Your task to perform on an android device: delete browsing data in the chrome app Image 0: 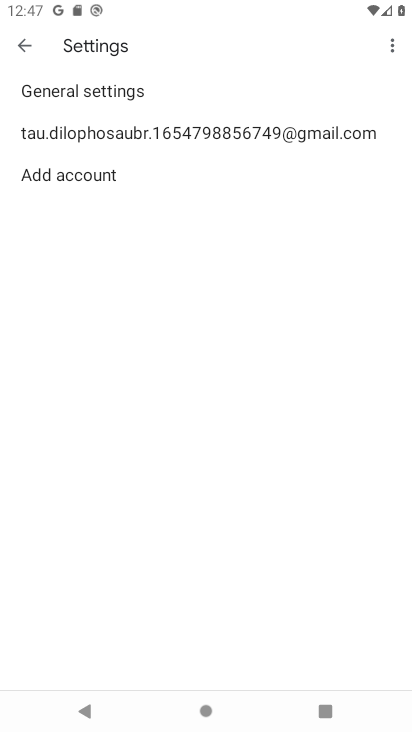
Step 0: press home button
Your task to perform on an android device: delete browsing data in the chrome app Image 1: 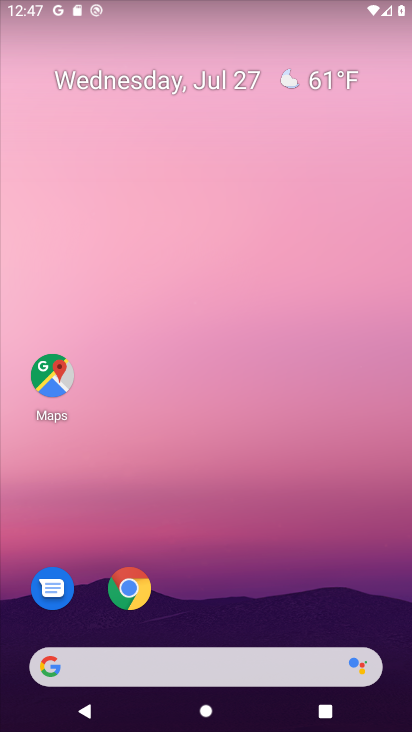
Step 1: click (130, 587)
Your task to perform on an android device: delete browsing data in the chrome app Image 2: 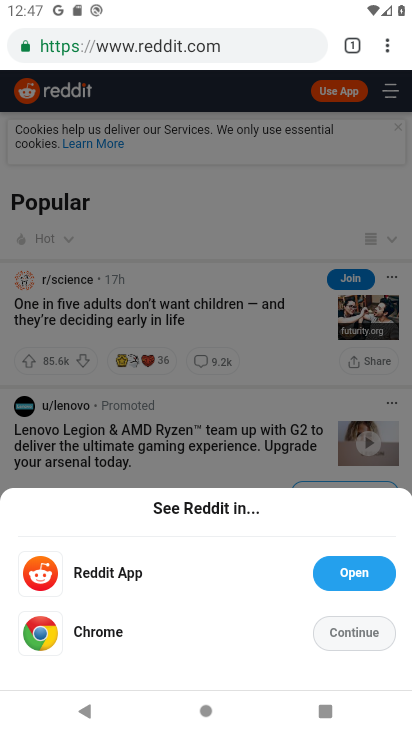
Step 2: press home button
Your task to perform on an android device: delete browsing data in the chrome app Image 3: 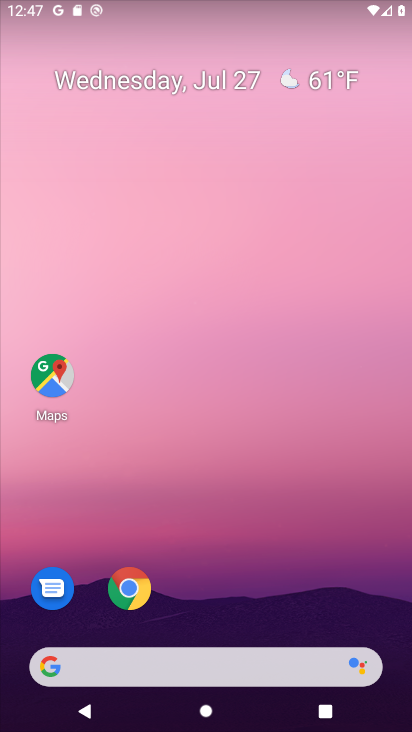
Step 3: click (128, 585)
Your task to perform on an android device: delete browsing data in the chrome app Image 4: 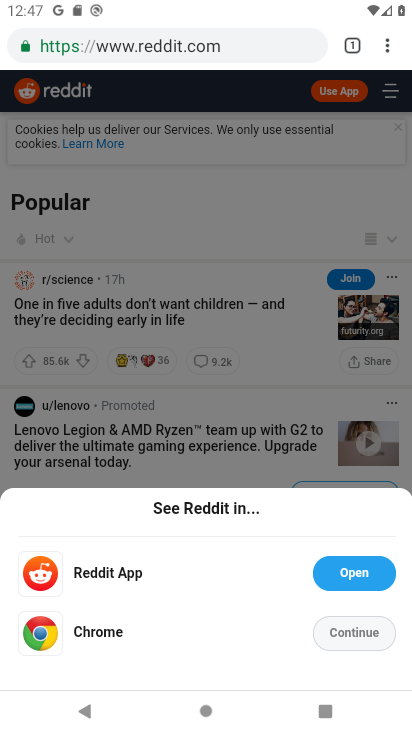
Step 4: click (42, 634)
Your task to perform on an android device: delete browsing data in the chrome app Image 5: 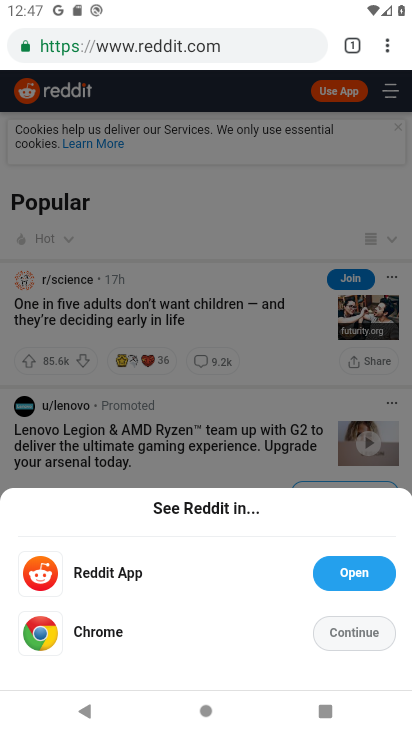
Step 5: click (340, 628)
Your task to perform on an android device: delete browsing data in the chrome app Image 6: 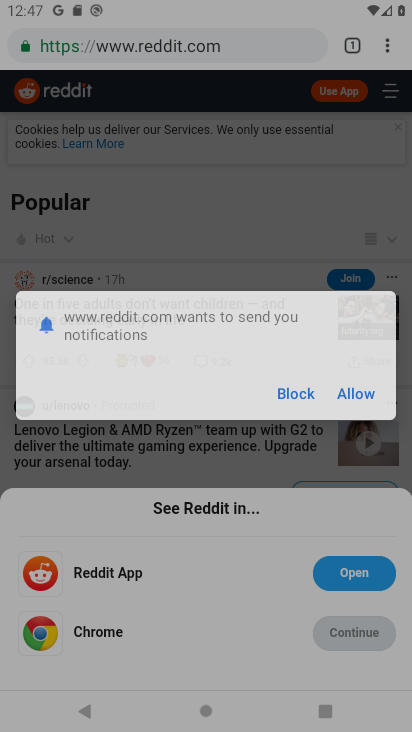
Step 6: click (87, 635)
Your task to perform on an android device: delete browsing data in the chrome app Image 7: 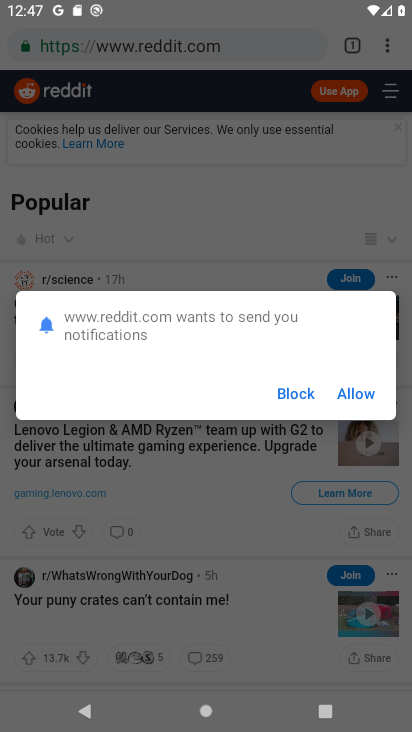
Step 7: click (305, 395)
Your task to perform on an android device: delete browsing data in the chrome app Image 8: 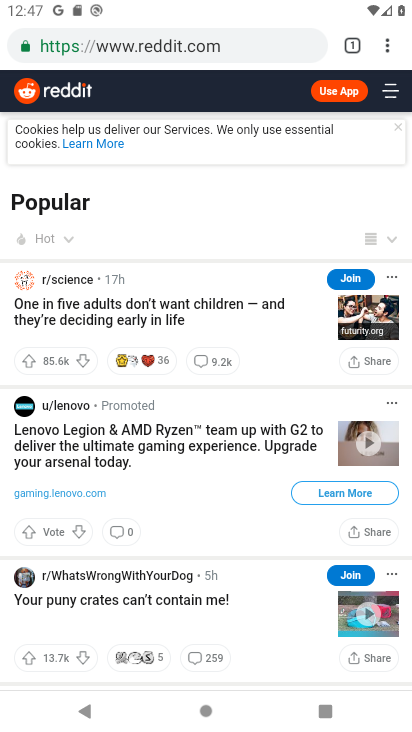
Step 8: click (243, 49)
Your task to perform on an android device: delete browsing data in the chrome app Image 9: 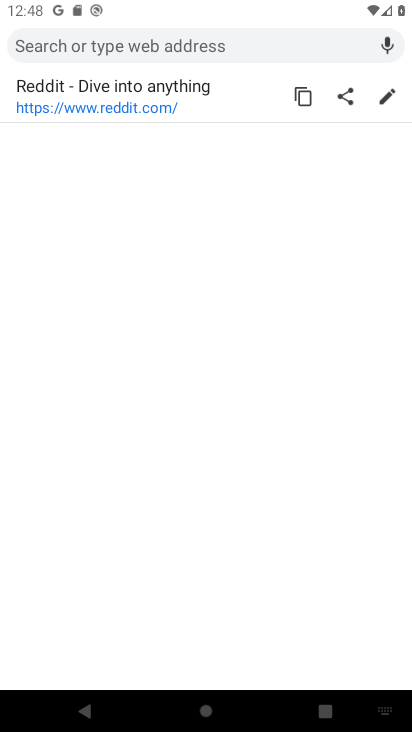
Step 9: press home button
Your task to perform on an android device: delete browsing data in the chrome app Image 10: 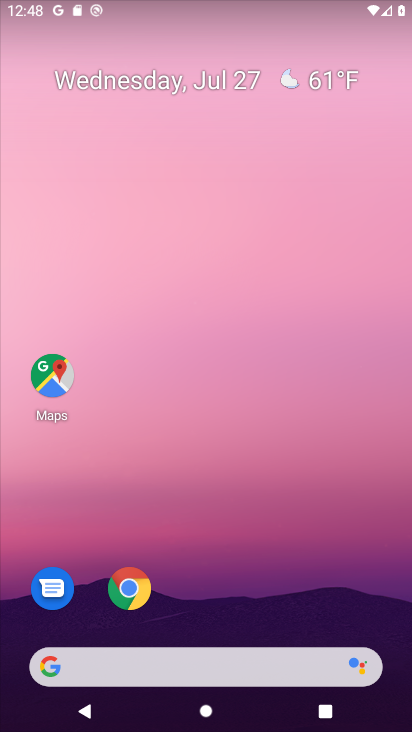
Step 10: click (124, 587)
Your task to perform on an android device: delete browsing data in the chrome app Image 11: 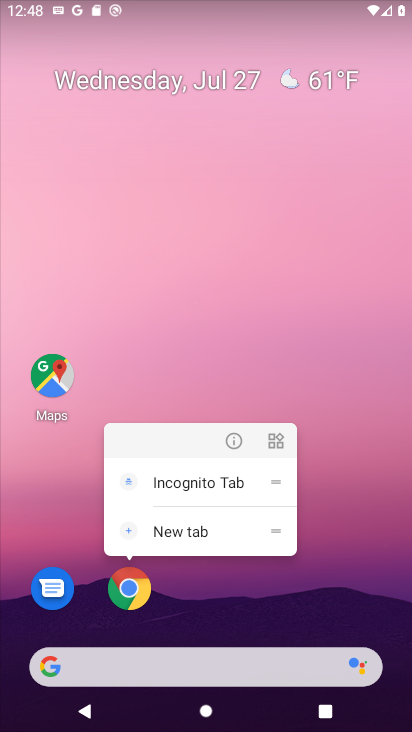
Step 11: click (124, 587)
Your task to perform on an android device: delete browsing data in the chrome app Image 12: 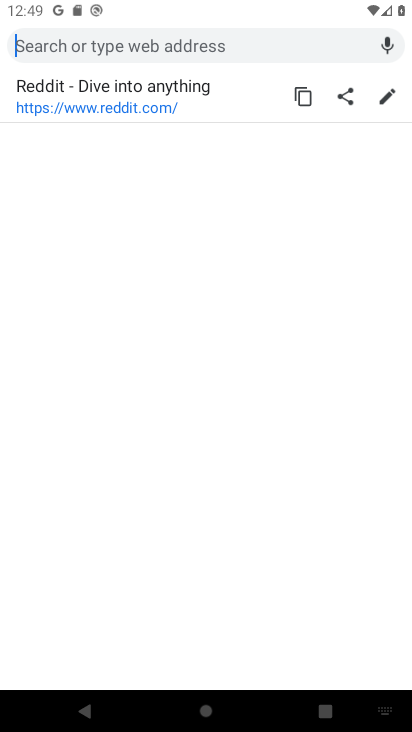
Step 12: task complete